Your task to perform on an android device: Go to notification settings Image 0: 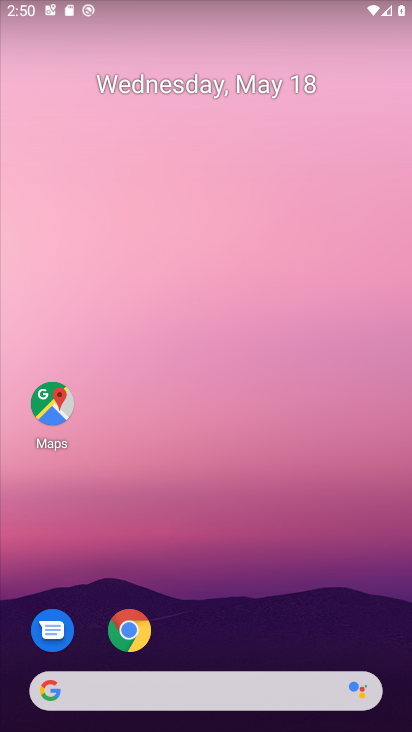
Step 0: press home button
Your task to perform on an android device: Go to notification settings Image 1: 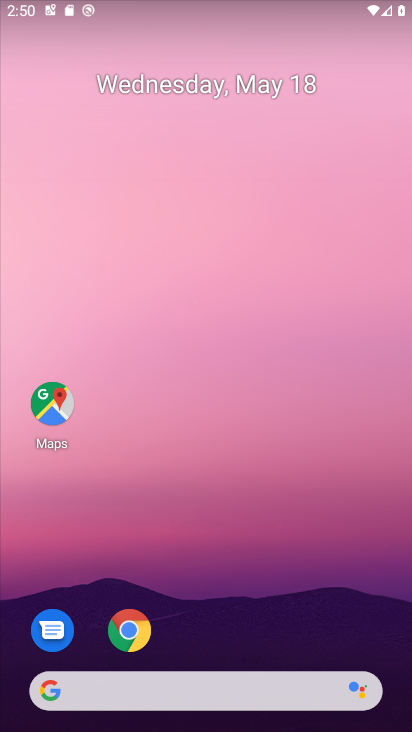
Step 1: drag from (204, 644) to (268, 0)
Your task to perform on an android device: Go to notification settings Image 2: 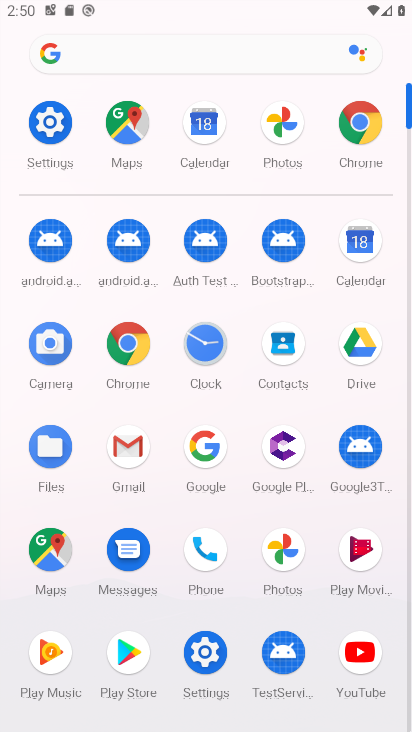
Step 2: click (51, 113)
Your task to perform on an android device: Go to notification settings Image 3: 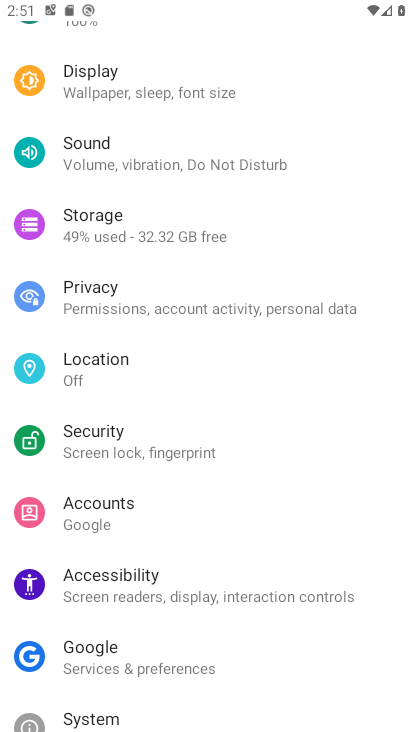
Step 3: drag from (135, 112) to (183, 584)
Your task to perform on an android device: Go to notification settings Image 4: 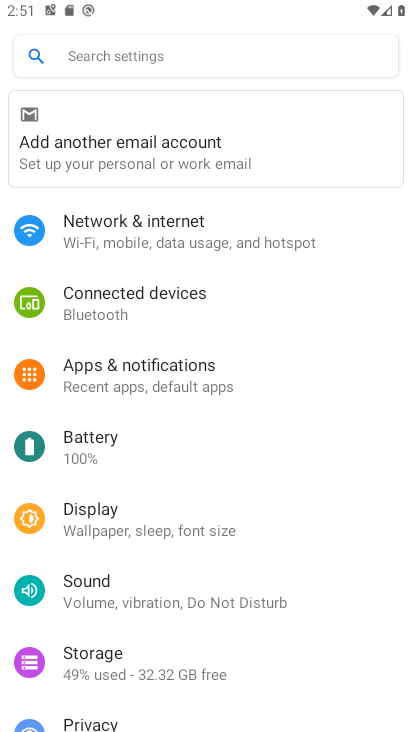
Step 4: click (230, 367)
Your task to perform on an android device: Go to notification settings Image 5: 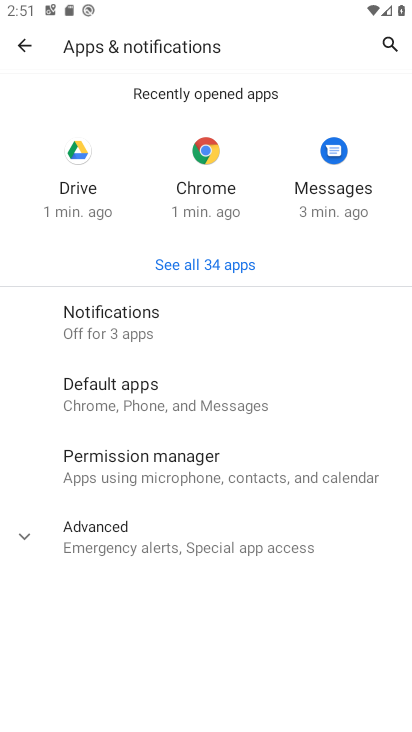
Step 5: click (171, 318)
Your task to perform on an android device: Go to notification settings Image 6: 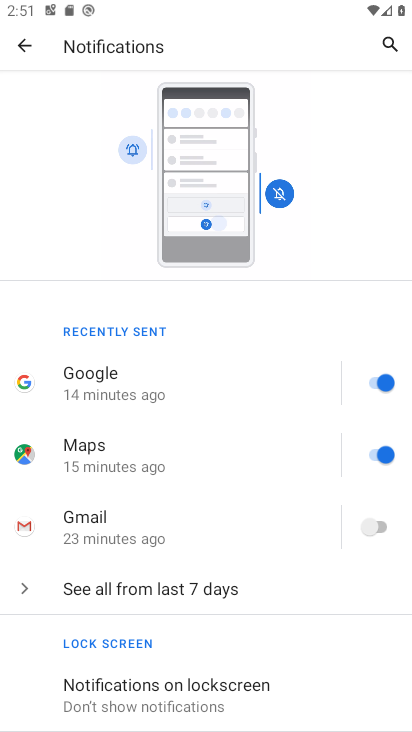
Step 6: drag from (195, 629) to (256, 286)
Your task to perform on an android device: Go to notification settings Image 7: 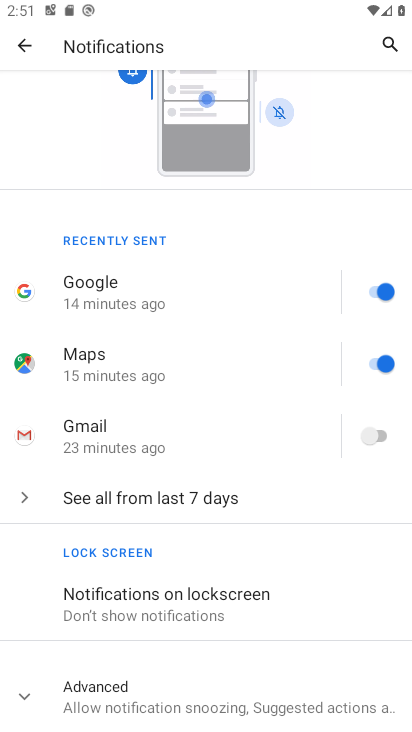
Step 7: click (23, 695)
Your task to perform on an android device: Go to notification settings Image 8: 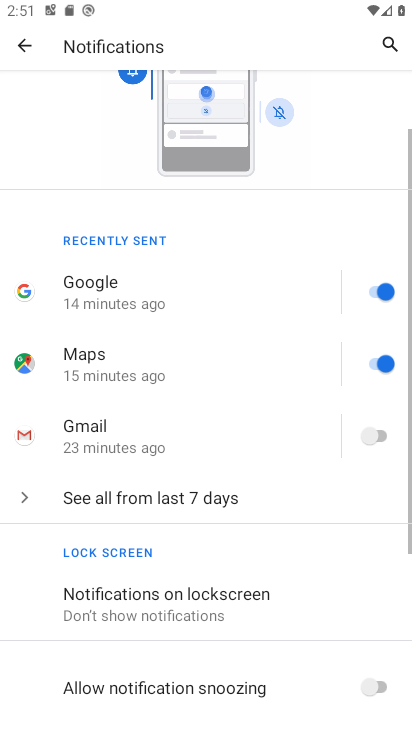
Step 8: task complete